Your task to perform on an android device: Go to CNN.com Image 0: 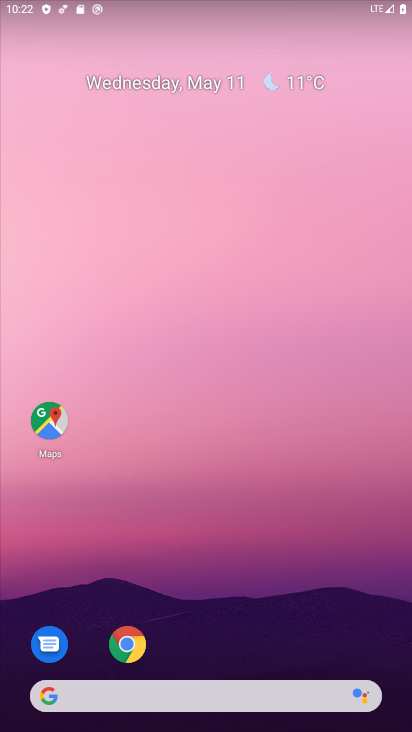
Step 0: click (124, 640)
Your task to perform on an android device: Go to CNN.com Image 1: 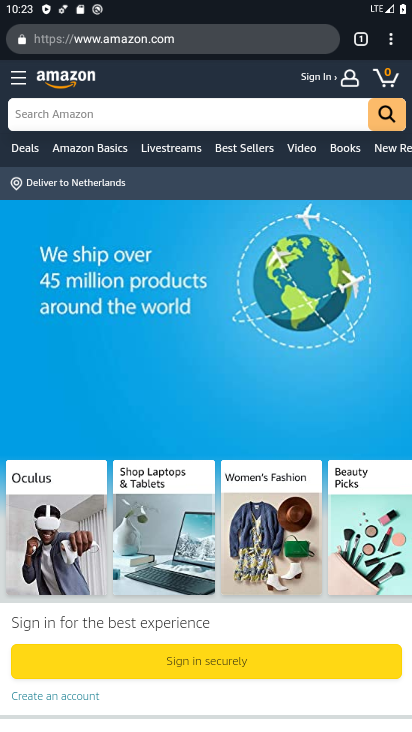
Step 1: click (390, 40)
Your task to perform on an android device: Go to CNN.com Image 2: 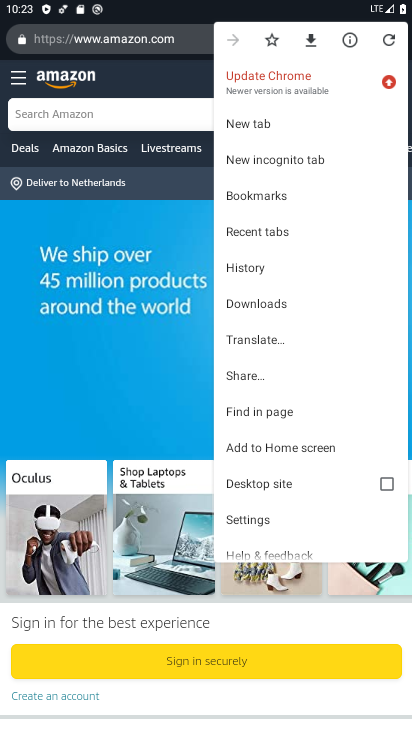
Step 2: click (84, 227)
Your task to perform on an android device: Go to CNN.com Image 3: 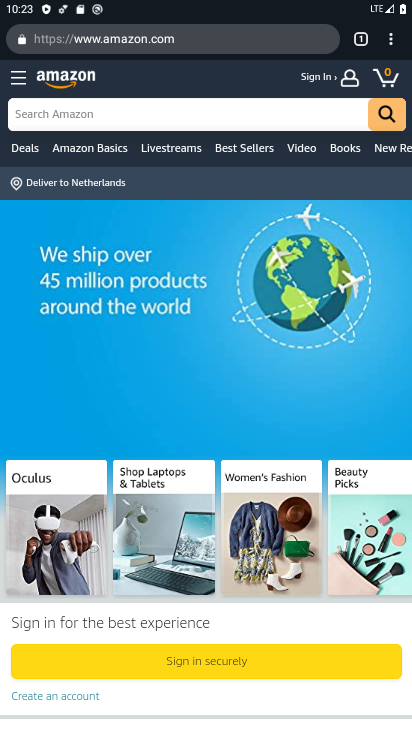
Step 3: click (362, 39)
Your task to perform on an android device: Go to CNN.com Image 4: 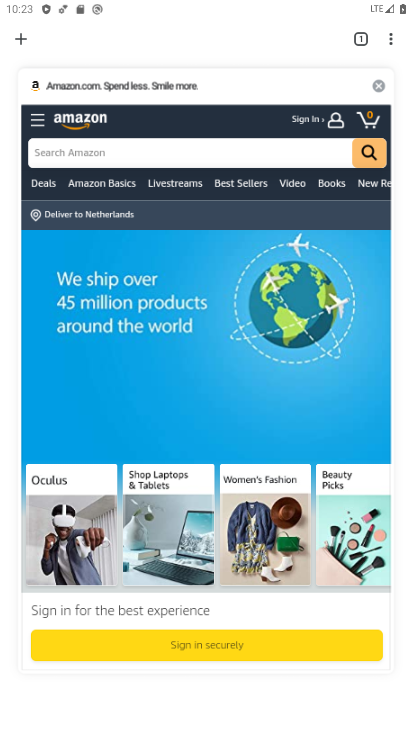
Step 4: click (376, 87)
Your task to perform on an android device: Go to CNN.com Image 5: 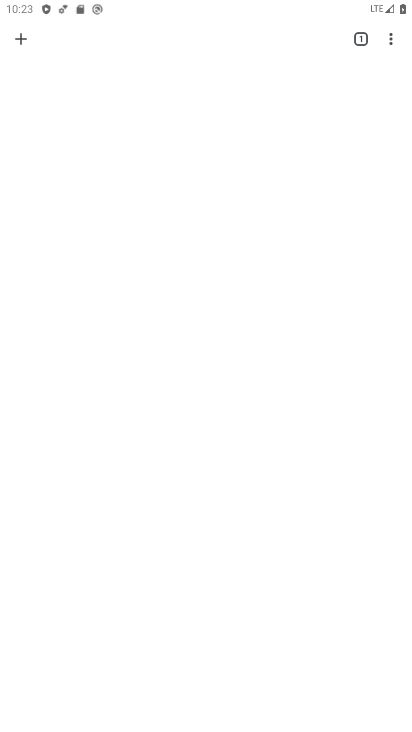
Step 5: click (21, 42)
Your task to perform on an android device: Go to CNN.com Image 6: 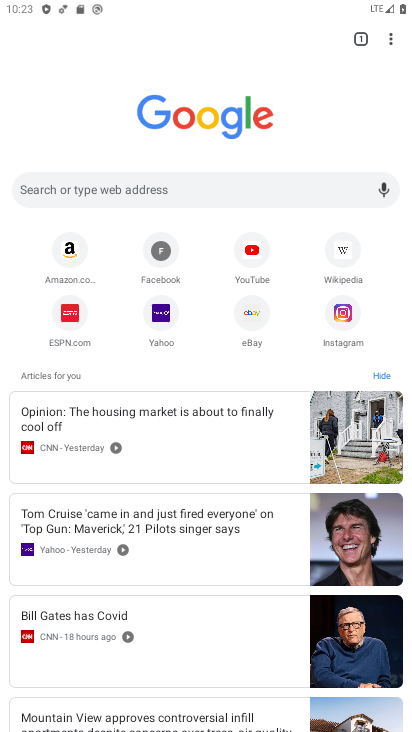
Step 6: click (156, 183)
Your task to perform on an android device: Go to CNN.com Image 7: 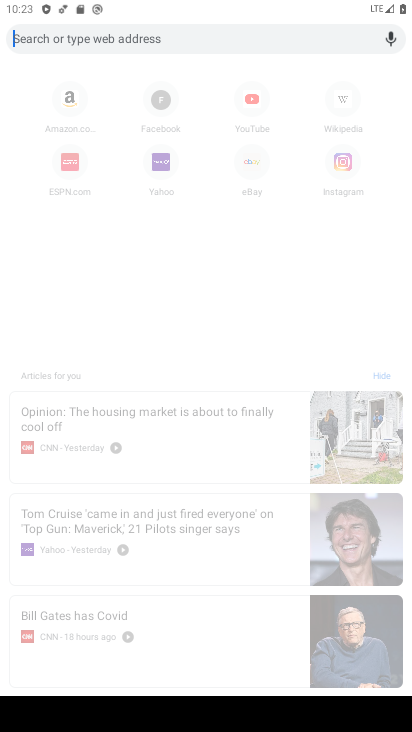
Step 7: type "cnn.com"
Your task to perform on an android device: Go to CNN.com Image 8: 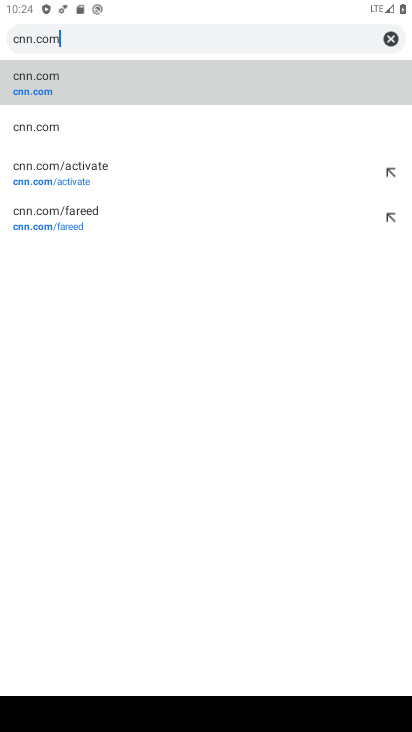
Step 8: click (104, 165)
Your task to perform on an android device: Go to CNN.com Image 9: 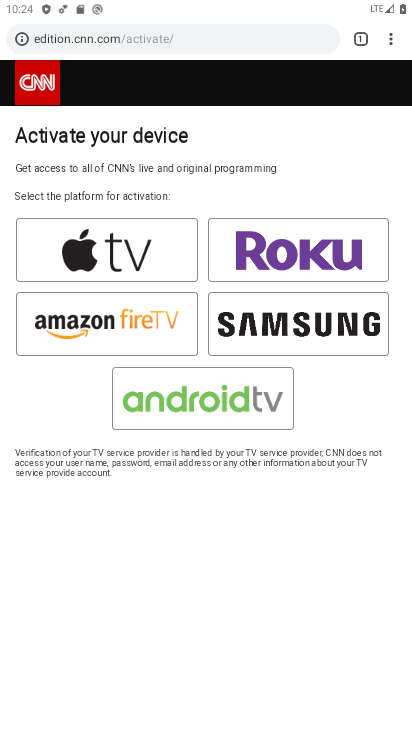
Step 9: task complete